Your task to perform on an android device: Show the shopping cart on newegg.com. Add acer predator to the cart on newegg.com Image 0: 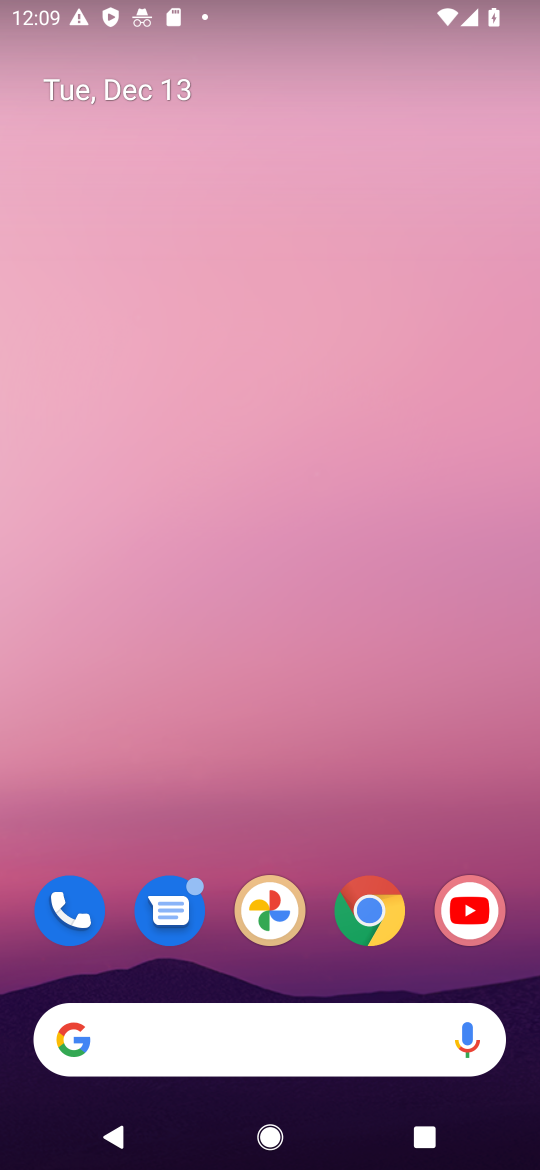
Step 0: task complete